Your task to perform on an android device: move a message to another label in the gmail app Image 0: 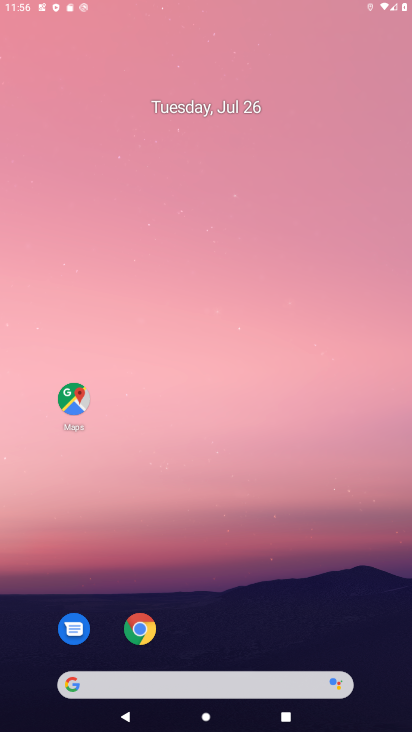
Step 0: click (141, 628)
Your task to perform on an android device: move a message to another label in the gmail app Image 1: 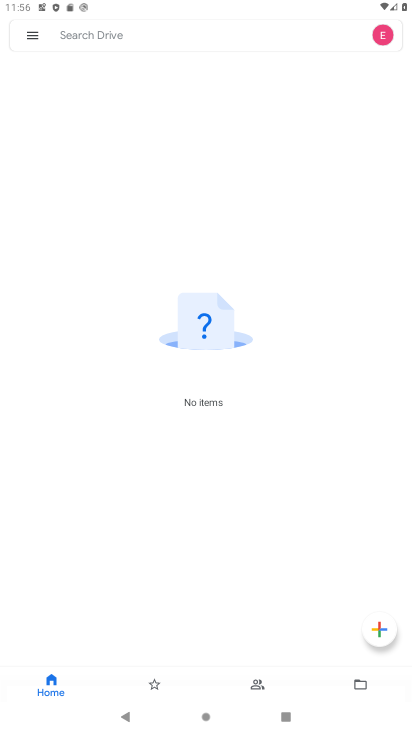
Step 1: press home button
Your task to perform on an android device: move a message to another label in the gmail app Image 2: 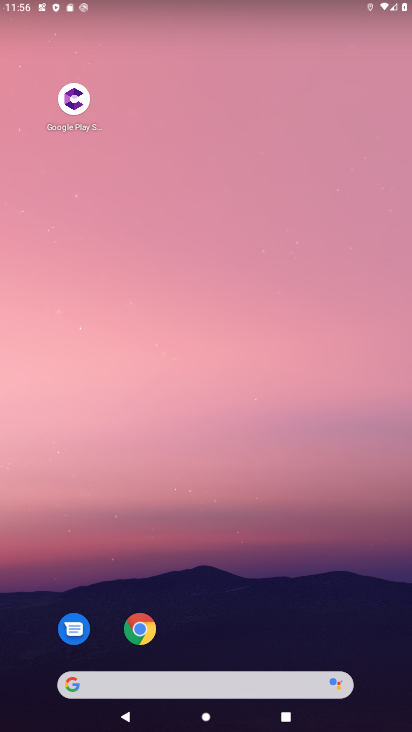
Step 2: click (226, 416)
Your task to perform on an android device: move a message to another label in the gmail app Image 3: 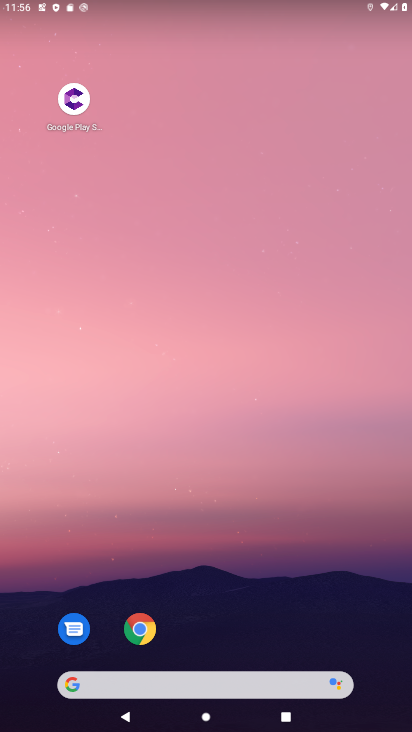
Step 3: drag from (231, 692) to (235, 354)
Your task to perform on an android device: move a message to another label in the gmail app Image 4: 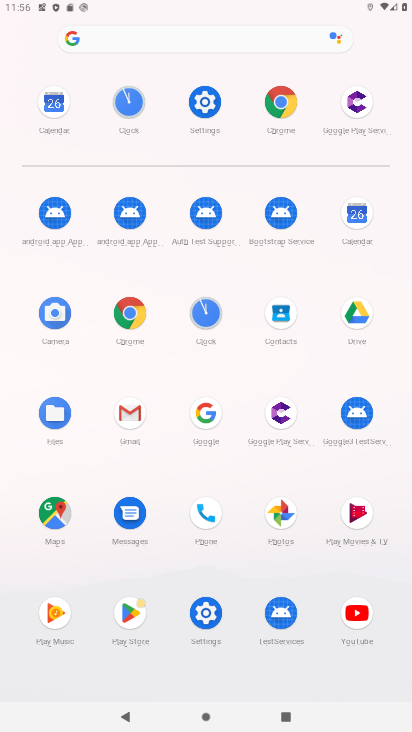
Step 4: click (135, 411)
Your task to perform on an android device: move a message to another label in the gmail app Image 5: 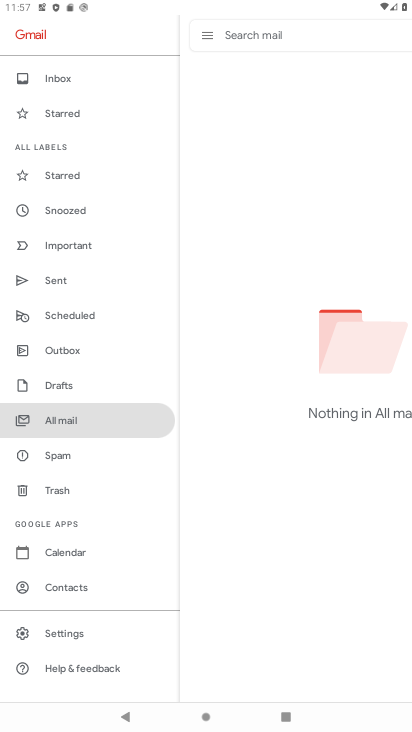
Step 5: click (63, 80)
Your task to perform on an android device: move a message to another label in the gmail app Image 6: 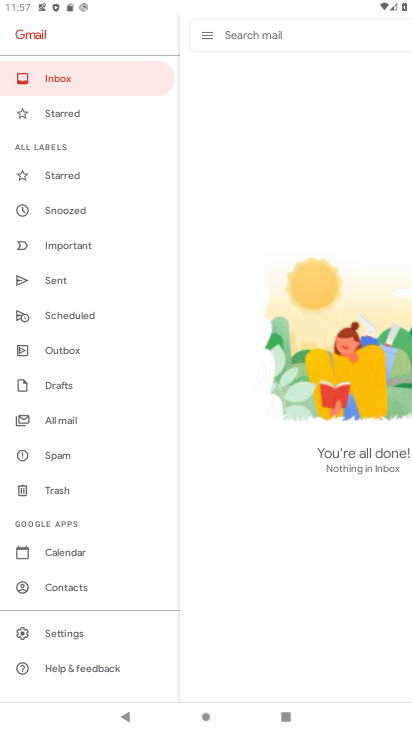
Step 6: task complete